Your task to perform on an android device: turn on javascript in the chrome app Image 0: 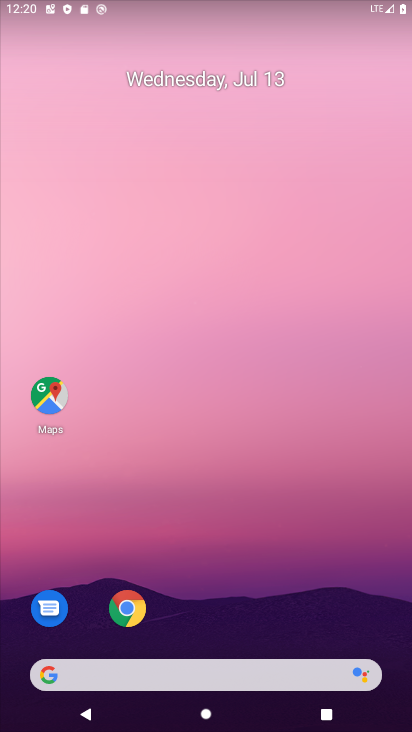
Step 0: click (114, 604)
Your task to perform on an android device: turn on javascript in the chrome app Image 1: 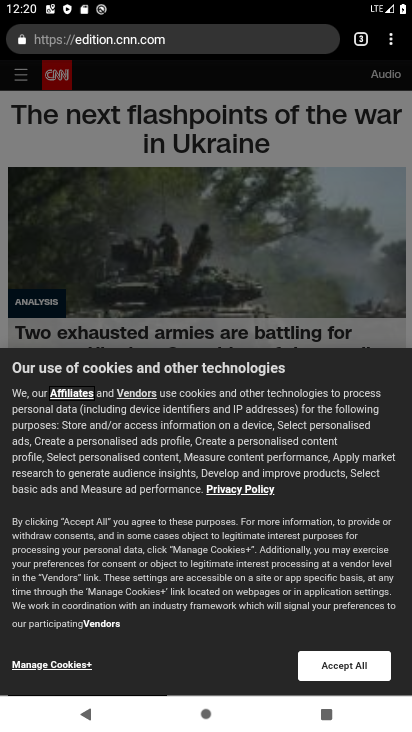
Step 1: drag from (391, 30) to (275, 478)
Your task to perform on an android device: turn on javascript in the chrome app Image 2: 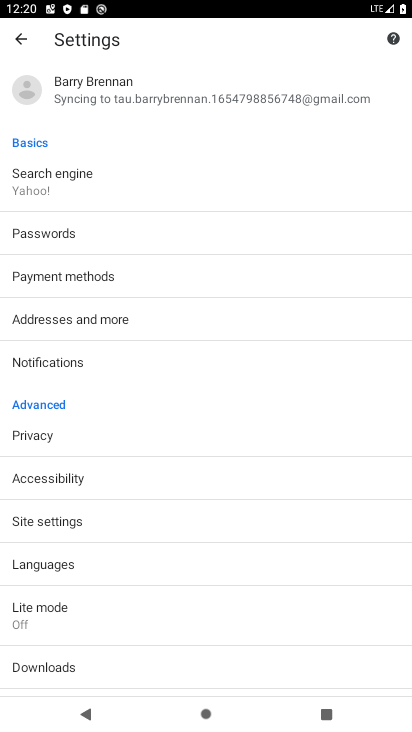
Step 2: click (79, 523)
Your task to perform on an android device: turn on javascript in the chrome app Image 3: 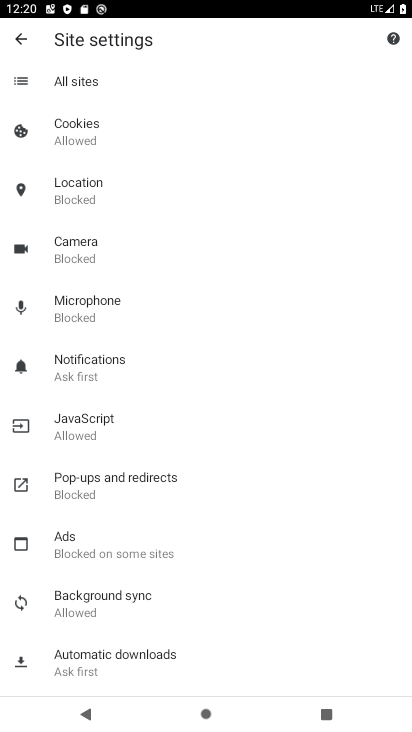
Step 3: click (110, 432)
Your task to perform on an android device: turn on javascript in the chrome app Image 4: 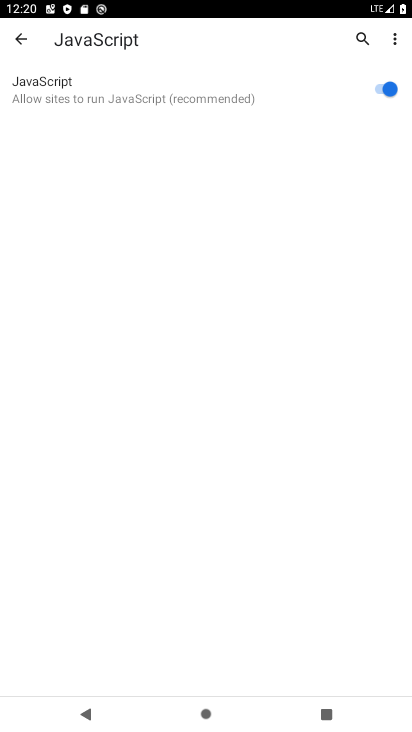
Step 4: task complete